Your task to perform on an android device: Open the map Image 0: 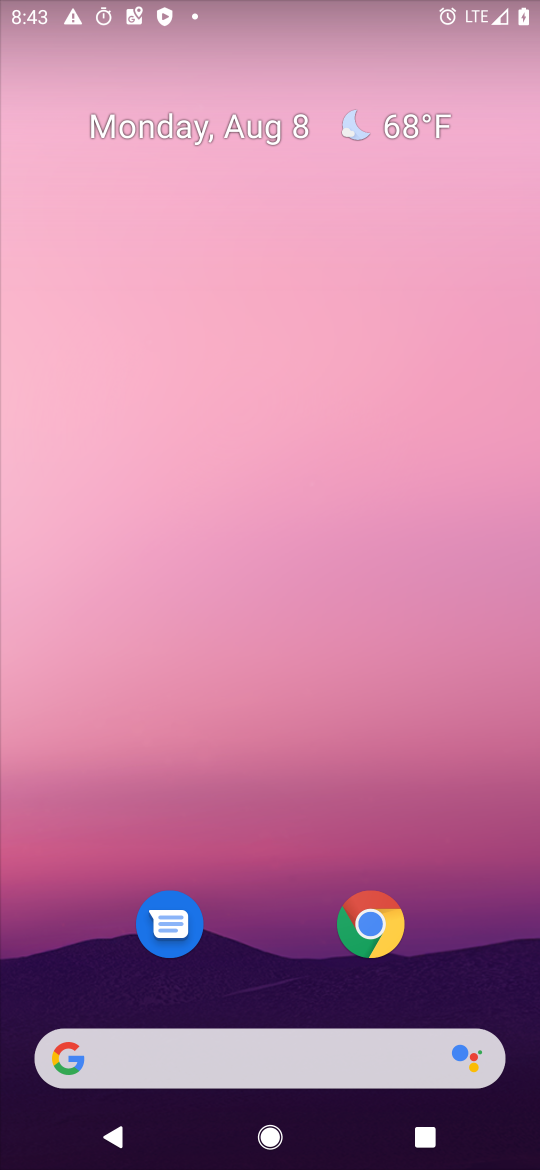
Step 0: drag from (252, 994) to (173, 232)
Your task to perform on an android device: Open the map Image 1: 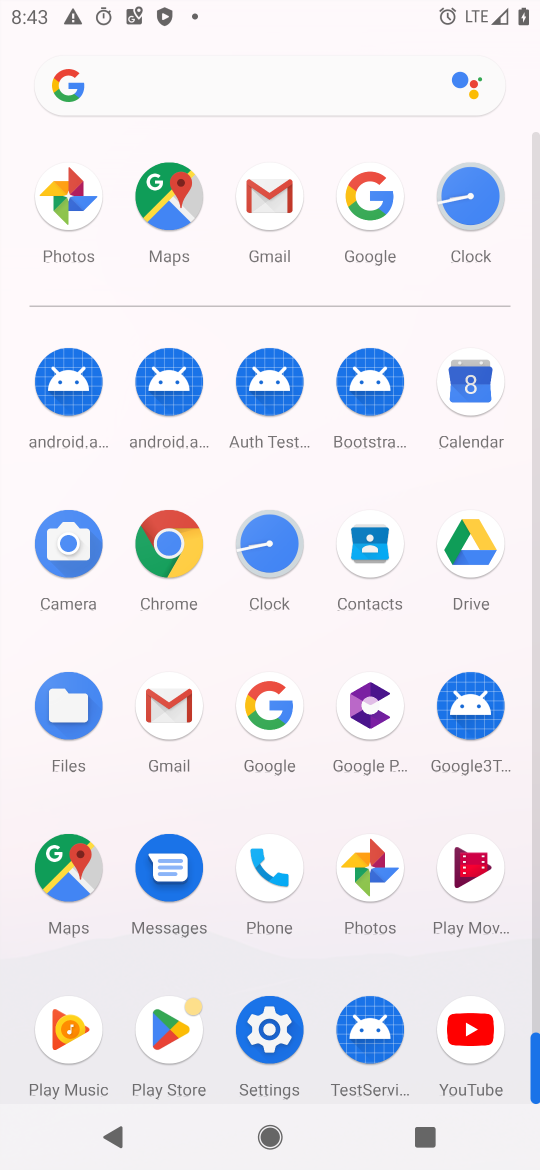
Step 1: click (178, 176)
Your task to perform on an android device: Open the map Image 2: 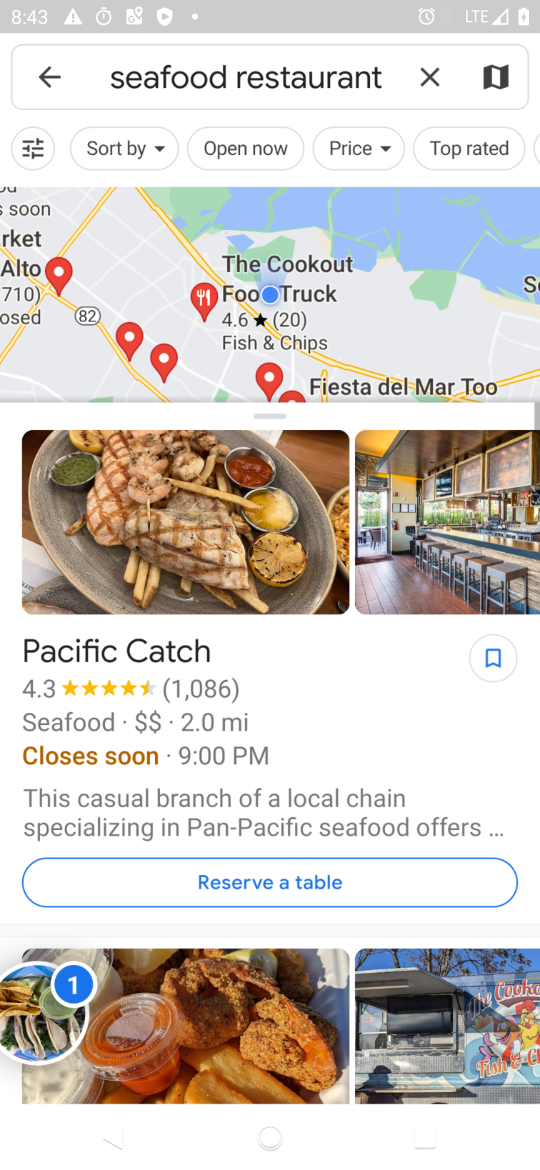
Step 2: click (180, 176)
Your task to perform on an android device: Open the map Image 3: 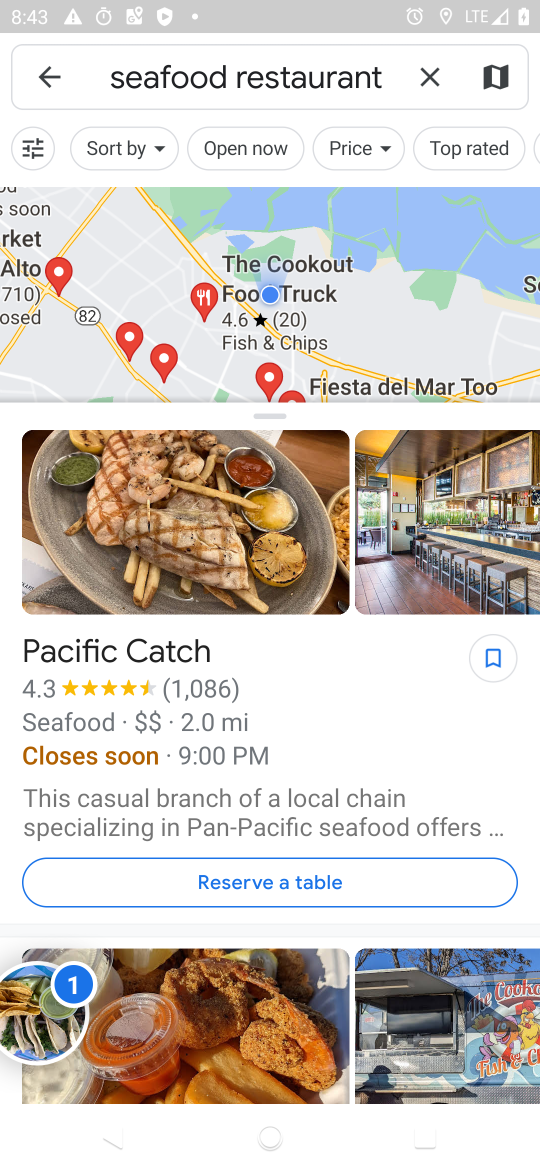
Step 3: task complete